Your task to perform on an android device: Open the calendar and show me this week's events Image 0: 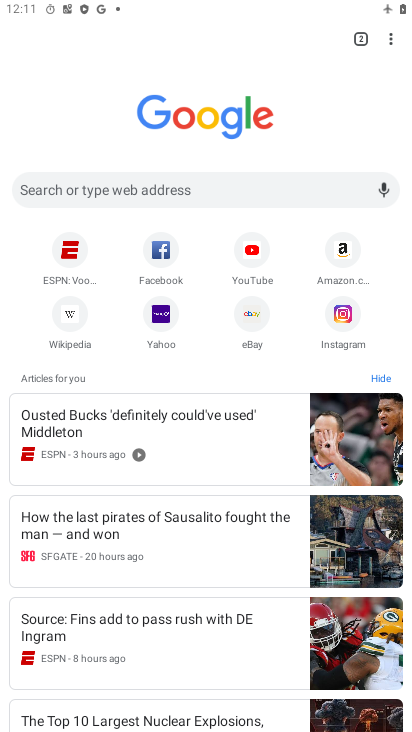
Step 0: click (336, 134)
Your task to perform on an android device: Open the calendar and show me this week's events Image 1: 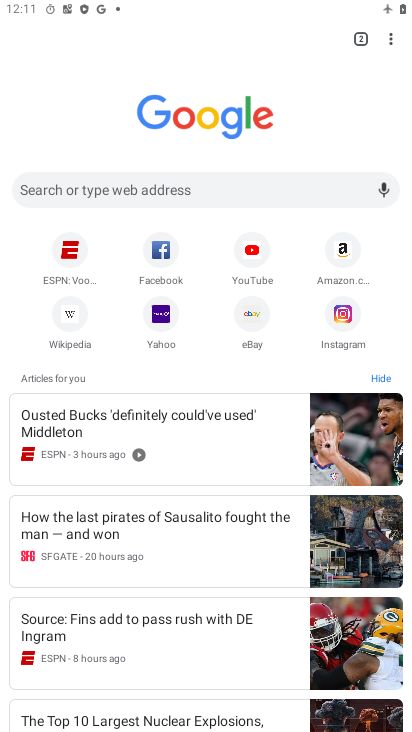
Step 1: press back button
Your task to perform on an android device: Open the calendar and show me this week's events Image 2: 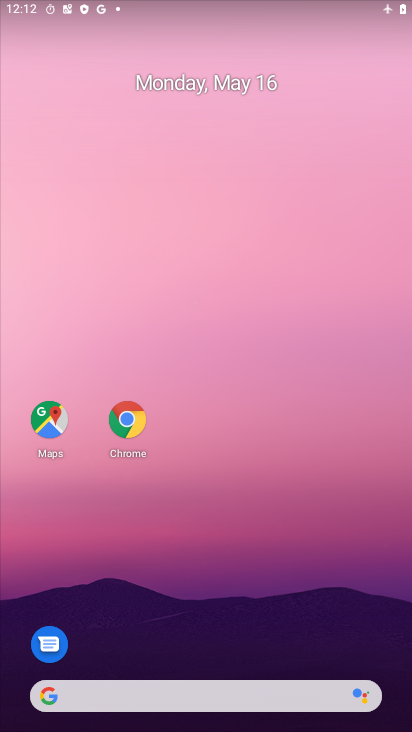
Step 2: drag from (153, 656) to (311, 18)
Your task to perform on an android device: Open the calendar and show me this week's events Image 3: 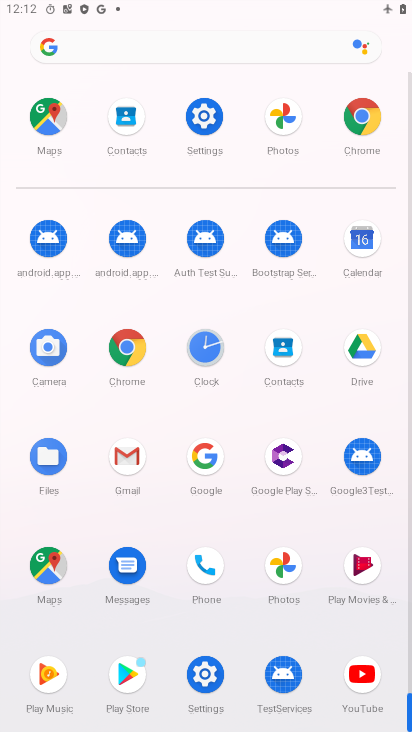
Step 3: click (353, 251)
Your task to perform on an android device: Open the calendar and show me this week's events Image 4: 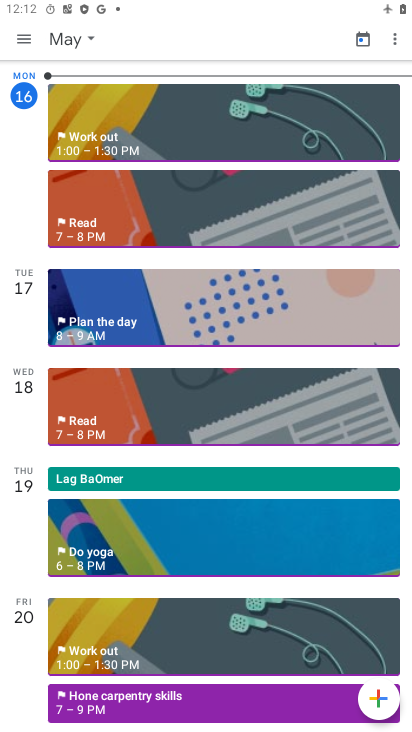
Step 4: click (88, 34)
Your task to perform on an android device: Open the calendar and show me this week's events Image 5: 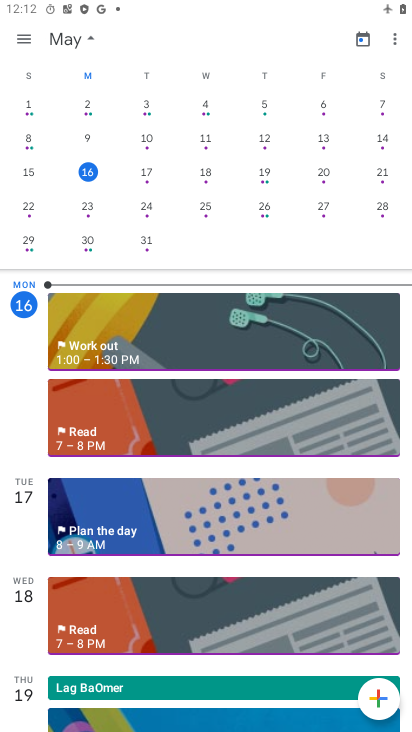
Step 5: click (139, 174)
Your task to perform on an android device: Open the calendar and show me this week's events Image 6: 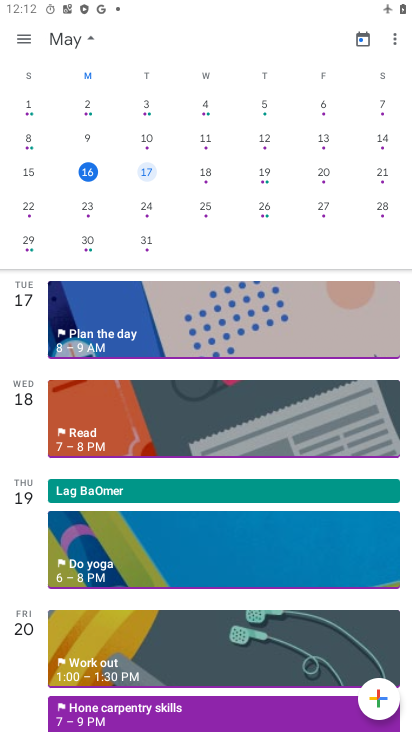
Step 6: click (138, 165)
Your task to perform on an android device: Open the calendar and show me this week's events Image 7: 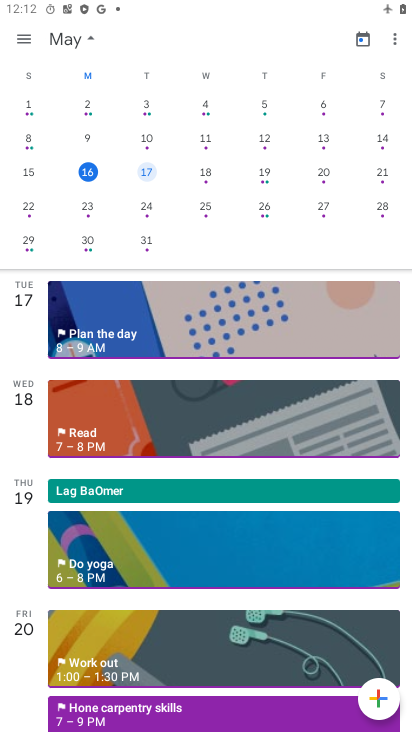
Step 7: click (145, 169)
Your task to perform on an android device: Open the calendar and show me this week's events Image 8: 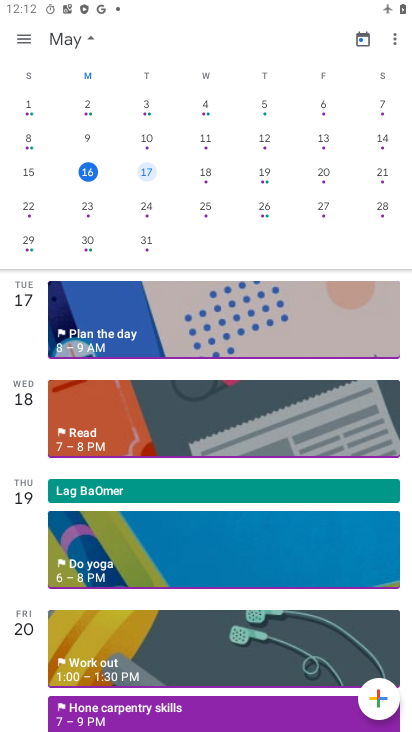
Step 8: task complete